Your task to perform on an android device: check data usage Image 0: 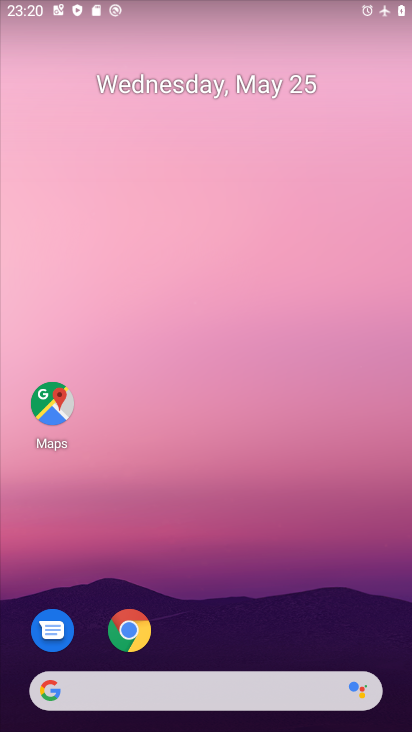
Step 0: drag from (212, 635) to (220, 174)
Your task to perform on an android device: check data usage Image 1: 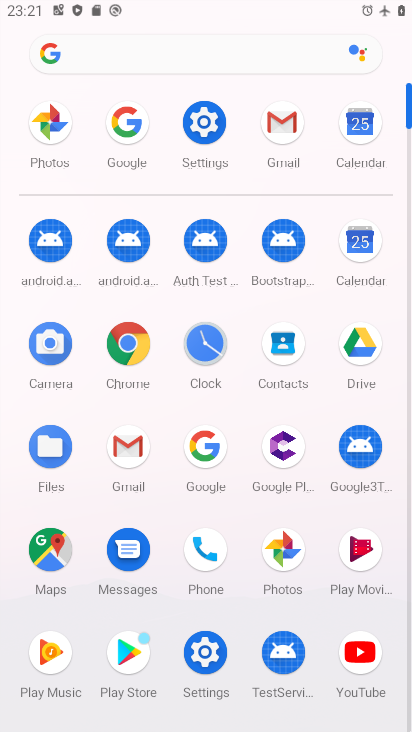
Step 1: click (197, 135)
Your task to perform on an android device: check data usage Image 2: 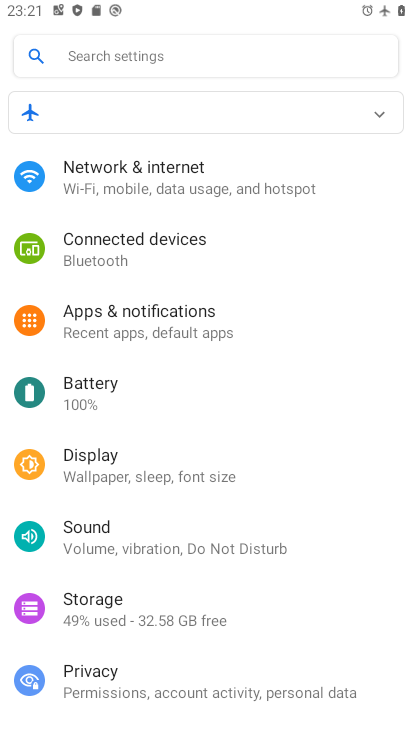
Step 2: click (157, 192)
Your task to perform on an android device: check data usage Image 3: 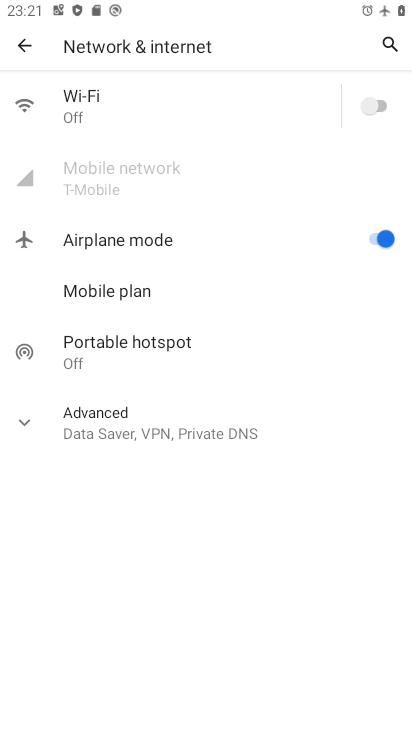
Step 3: click (158, 193)
Your task to perform on an android device: check data usage Image 4: 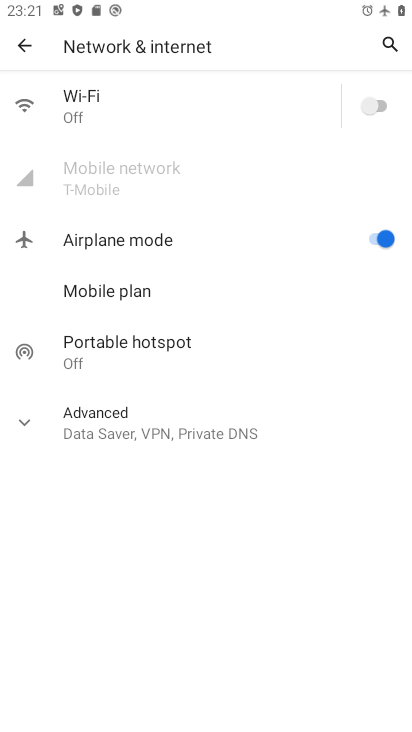
Step 4: task complete